Your task to perform on an android device: Search for corsair k70 on bestbuy.com, select the first entry, and add it to the cart. Image 0: 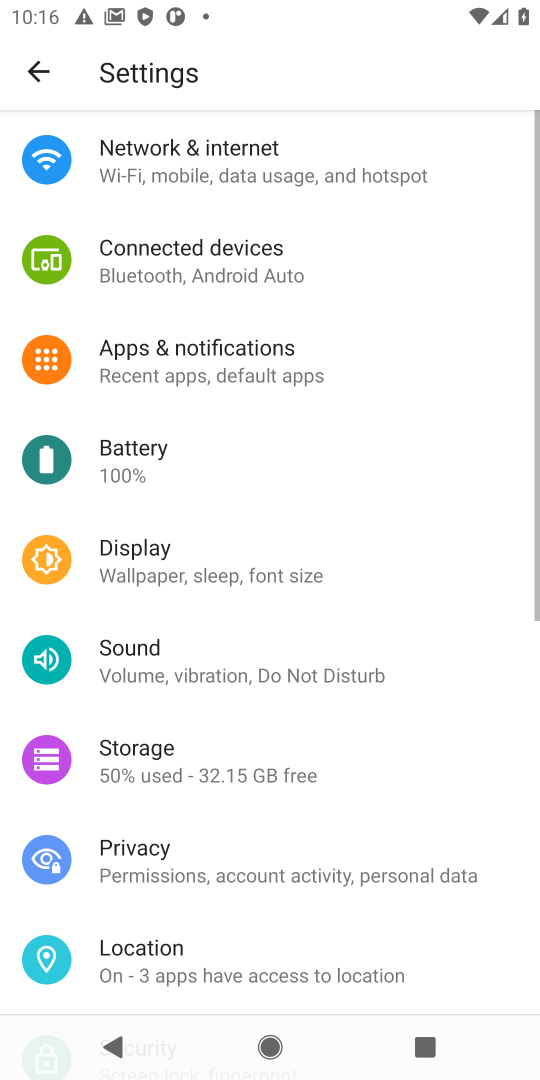
Step 0: drag from (240, 934) to (328, 624)
Your task to perform on an android device: Search for corsair k70 on bestbuy.com, select the first entry, and add it to the cart. Image 1: 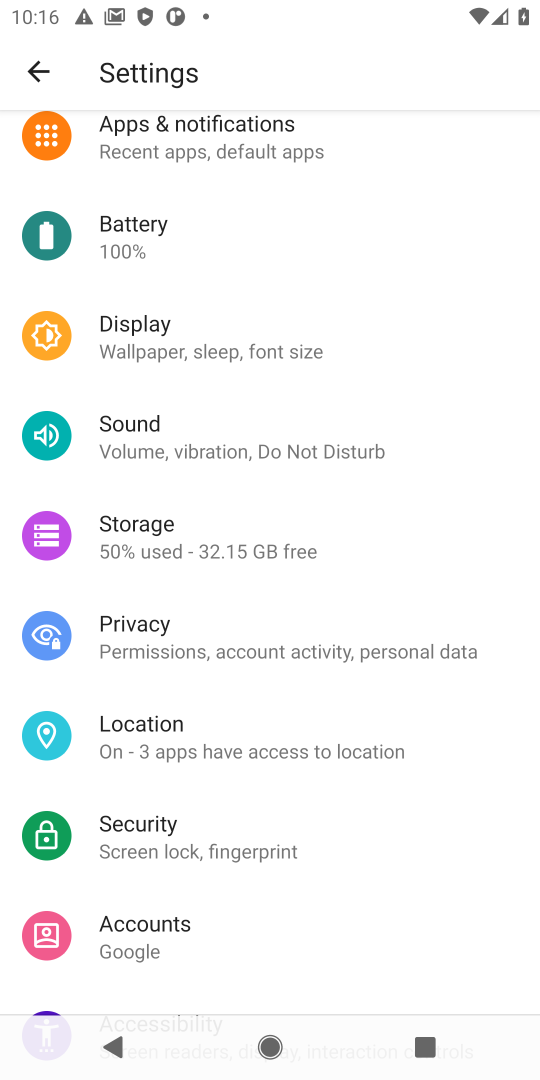
Step 1: press home button
Your task to perform on an android device: Search for corsair k70 on bestbuy.com, select the first entry, and add it to the cart. Image 2: 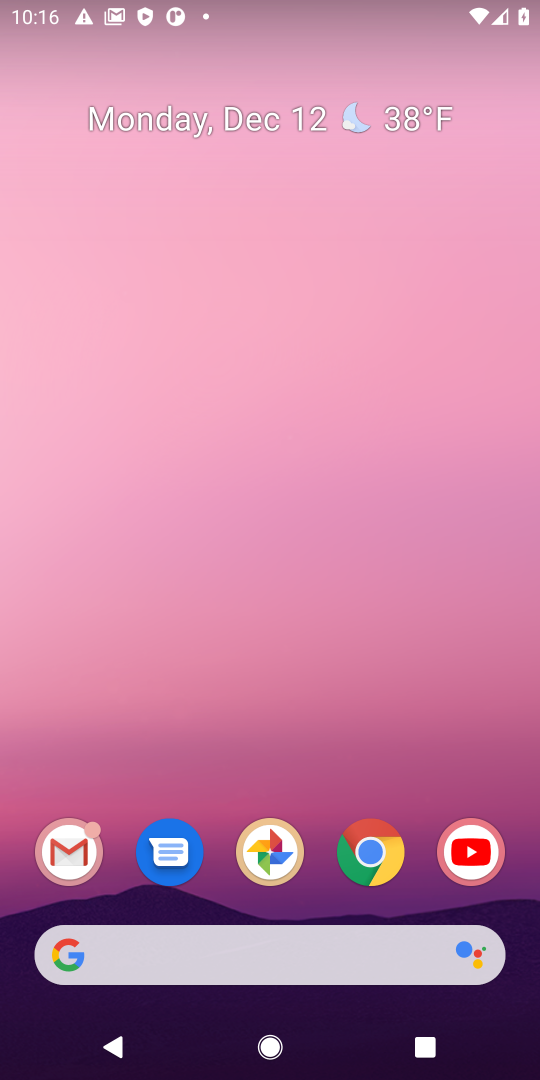
Step 2: drag from (281, 931) to (460, 204)
Your task to perform on an android device: Search for corsair k70 on bestbuy.com, select the first entry, and add it to the cart. Image 3: 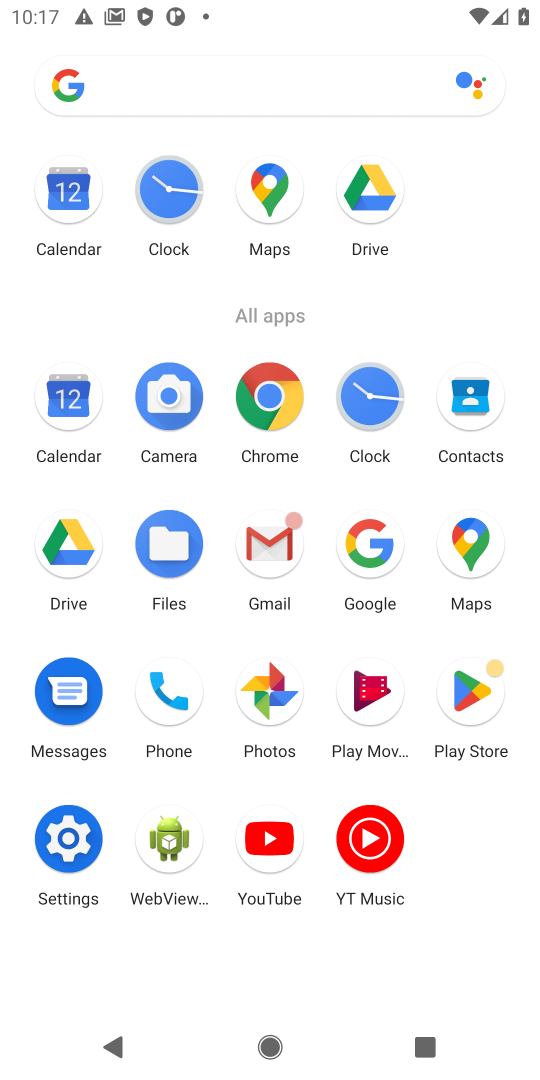
Step 3: click (368, 555)
Your task to perform on an android device: Search for corsair k70 on bestbuy.com, select the first entry, and add it to the cart. Image 4: 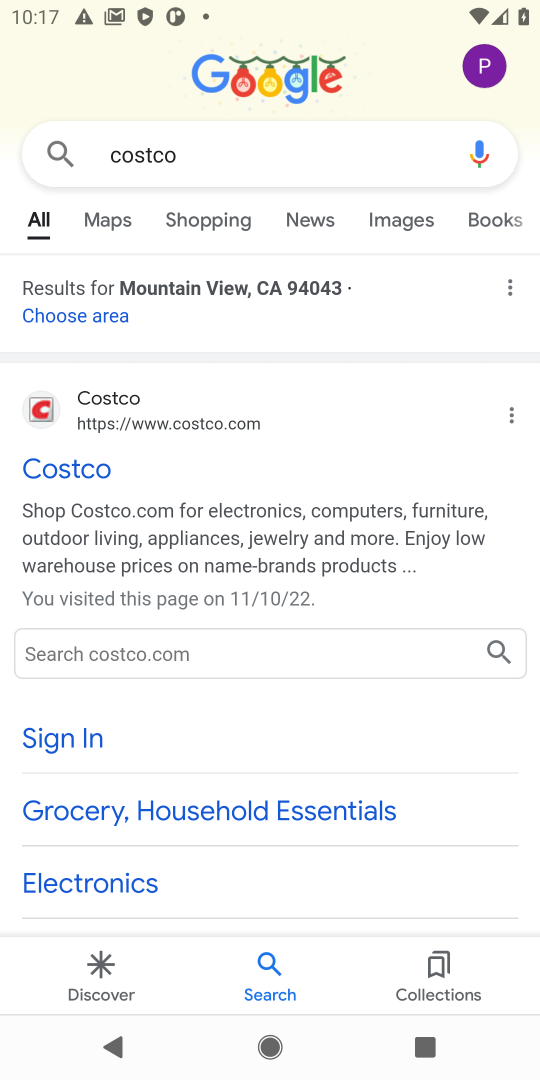
Step 4: click (154, 154)
Your task to perform on an android device: Search for corsair k70 on bestbuy.com, select the first entry, and add it to the cart. Image 5: 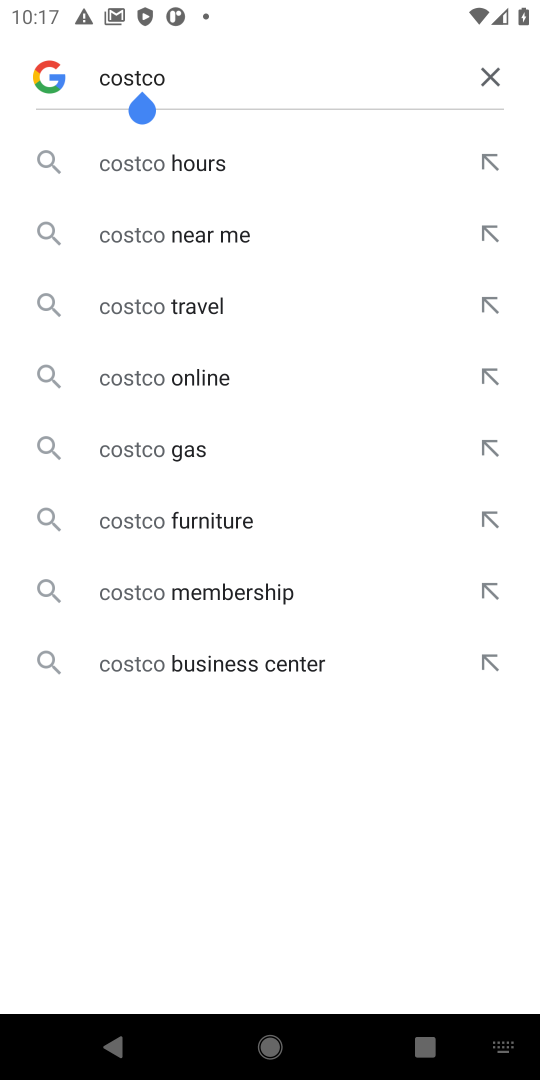
Step 5: click (501, 77)
Your task to perform on an android device: Search for corsair k70 on bestbuy.com, select the first entry, and add it to the cart. Image 6: 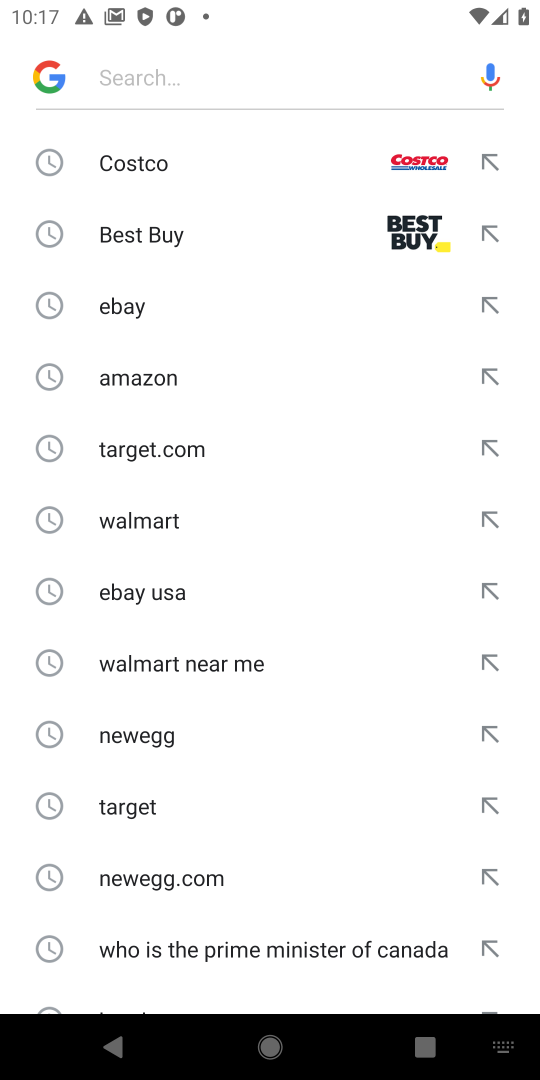
Step 6: click (168, 241)
Your task to perform on an android device: Search for corsair k70 on bestbuy.com, select the first entry, and add it to the cart. Image 7: 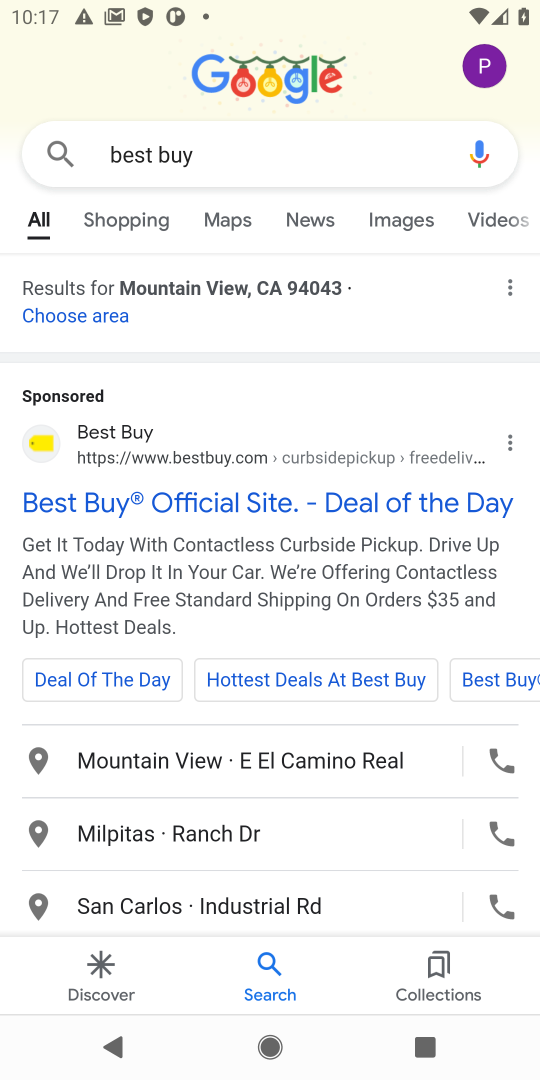
Step 7: click (142, 511)
Your task to perform on an android device: Search for corsair k70 on bestbuy.com, select the first entry, and add it to the cart. Image 8: 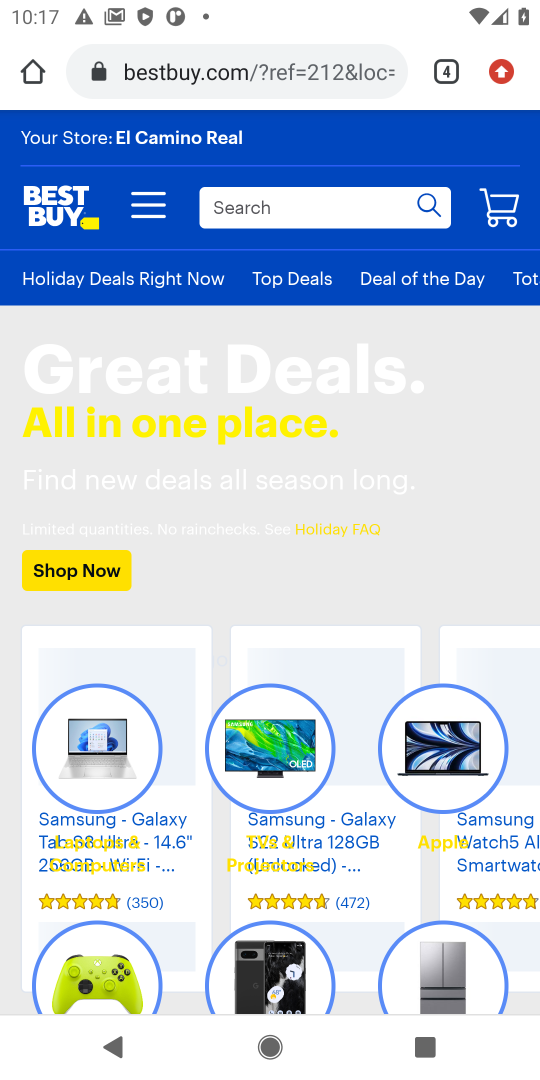
Step 8: click (303, 199)
Your task to perform on an android device: Search for corsair k70 on bestbuy.com, select the first entry, and add it to the cart. Image 9: 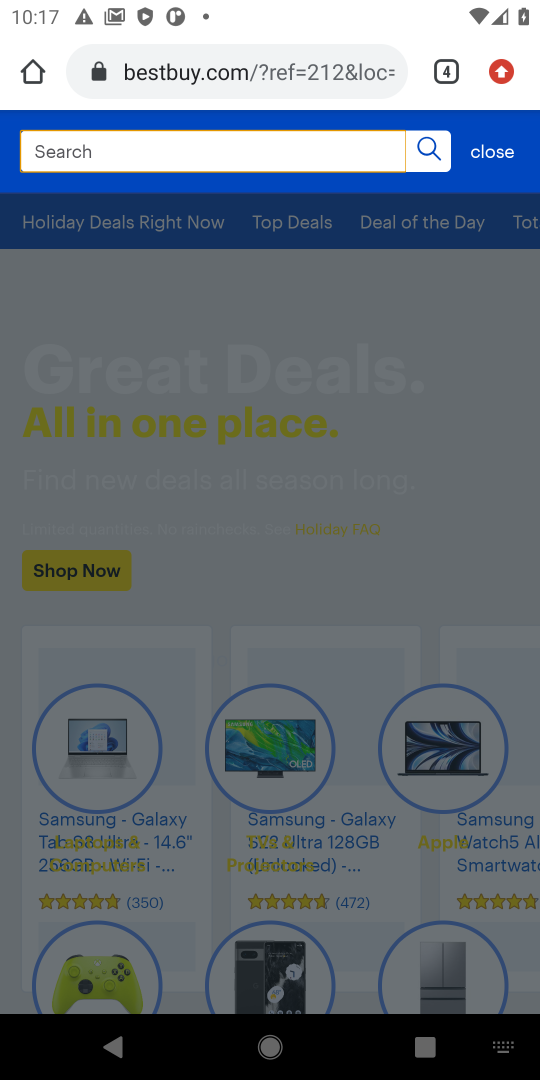
Step 9: click (210, 152)
Your task to perform on an android device: Search for corsair k70 on bestbuy.com, select the first entry, and add it to the cart. Image 10: 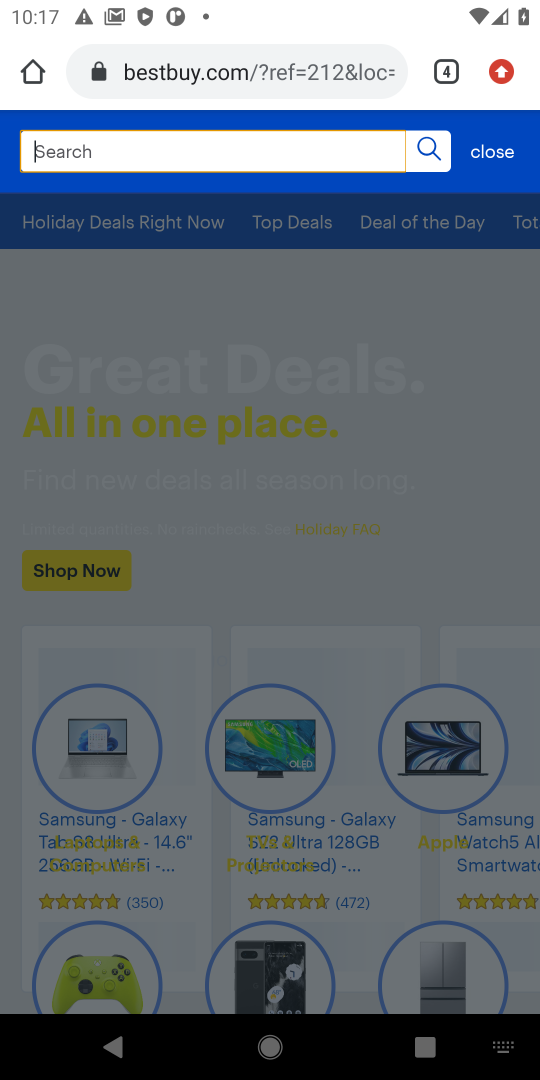
Step 10: type "corsair k70"
Your task to perform on an android device: Search for corsair k70 on bestbuy.com, select the first entry, and add it to the cart. Image 11: 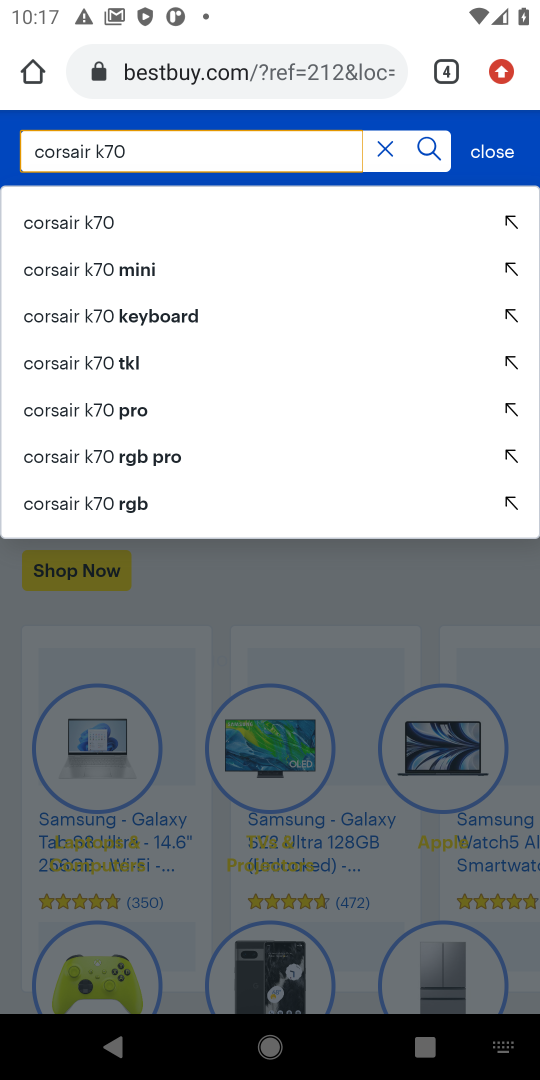
Step 11: click (109, 221)
Your task to perform on an android device: Search for corsair k70 on bestbuy.com, select the first entry, and add it to the cart. Image 12: 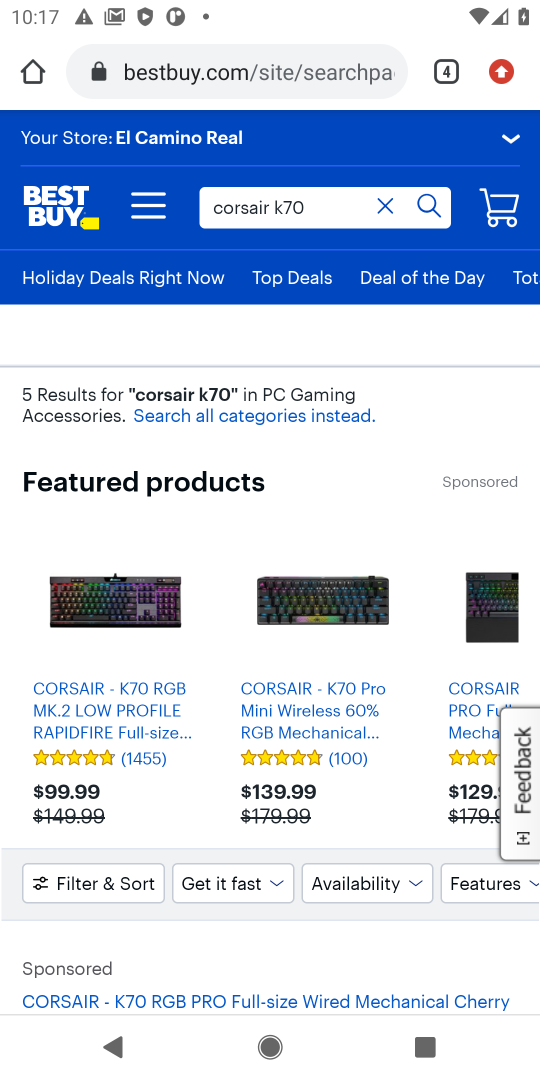
Step 12: drag from (210, 806) to (247, 404)
Your task to perform on an android device: Search for corsair k70 on bestbuy.com, select the first entry, and add it to the cart. Image 13: 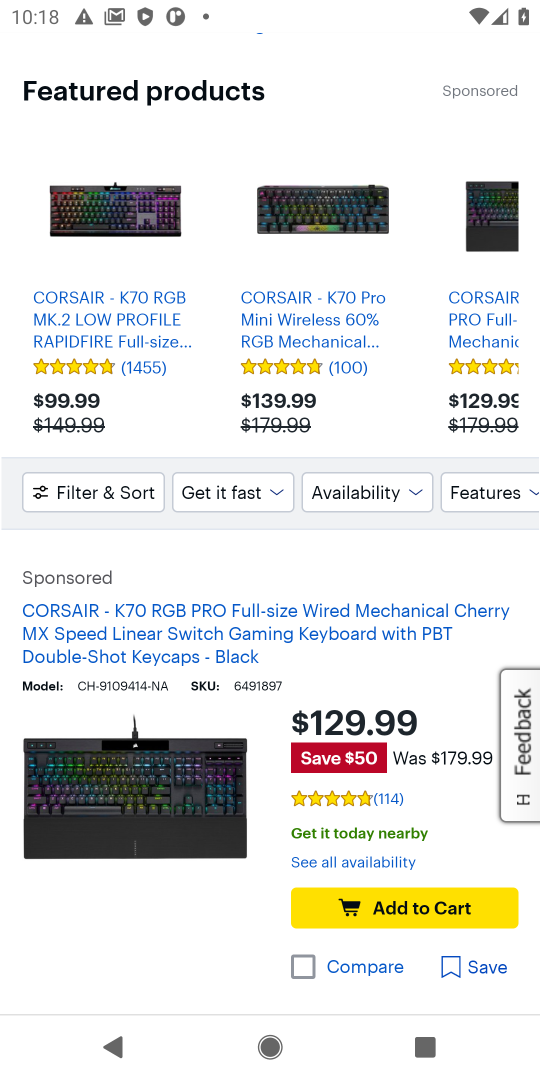
Step 13: click (428, 910)
Your task to perform on an android device: Search for corsair k70 on bestbuy.com, select the first entry, and add it to the cart. Image 14: 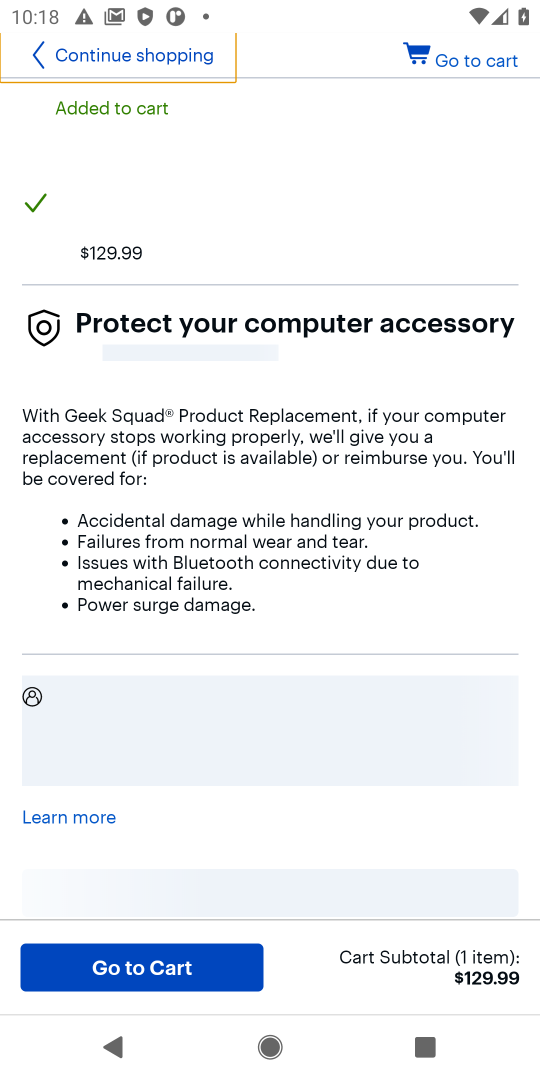
Step 14: click (144, 961)
Your task to perform on an android device: Search for corsair k70 on bestbuy.com, select the first entry, and add it to the cart. Image 15: 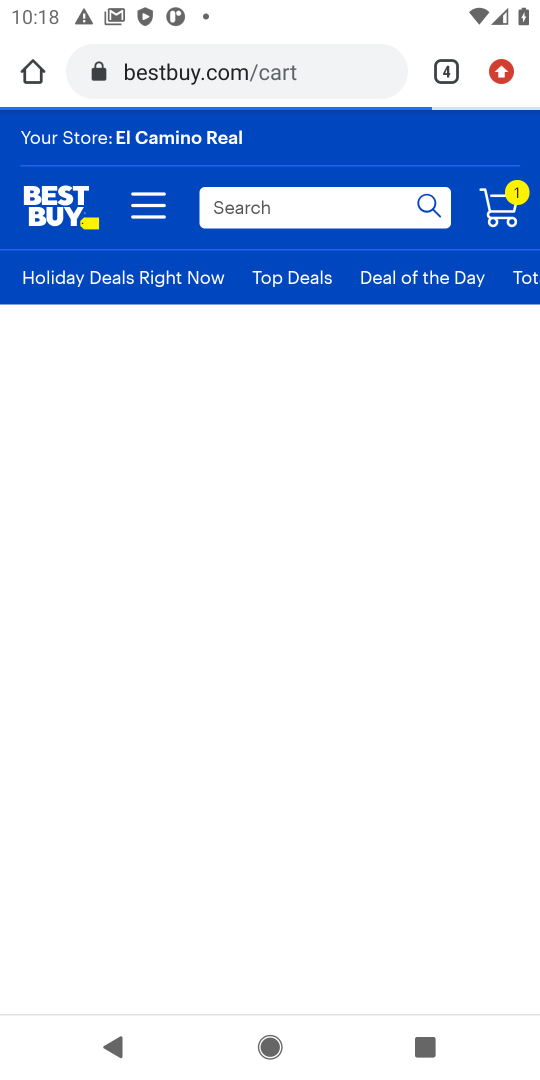
Step 15: task complete